Your task to perform on an android device: open a new tab in the chrome app Image 0: 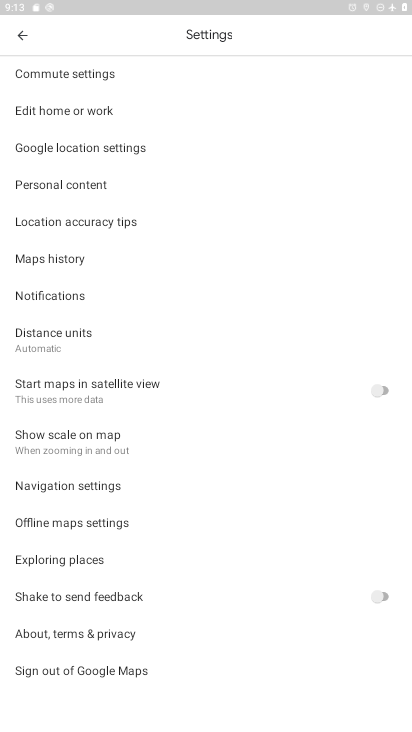
Step 0: press home button
Your task to perform on an android device: open a new tab in the chrome app Image 1: 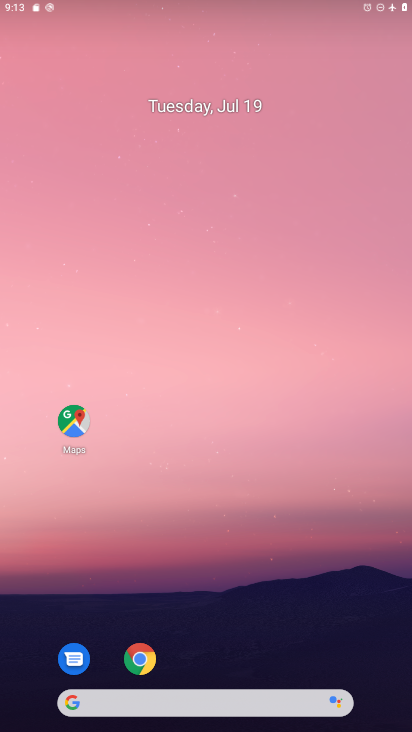
Step 1: drag from (238, 622) to (238, 260)
Your task to perform on an android device: open a new tab in the chrome app Image 2: 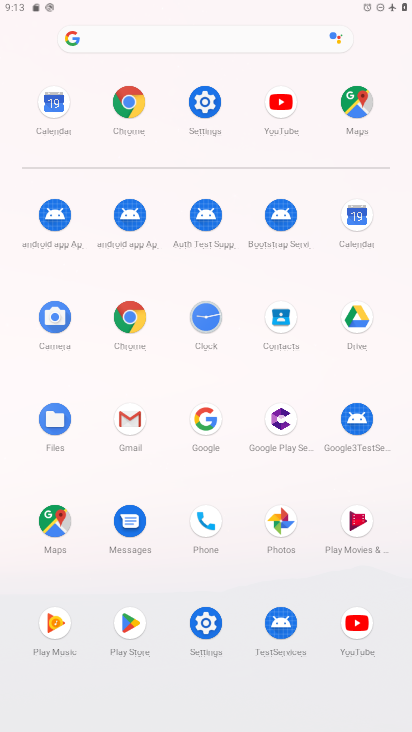
Step 2: click (116, 107)
Your task to perform on an android device: open a new tab in the chrome app Image 3: 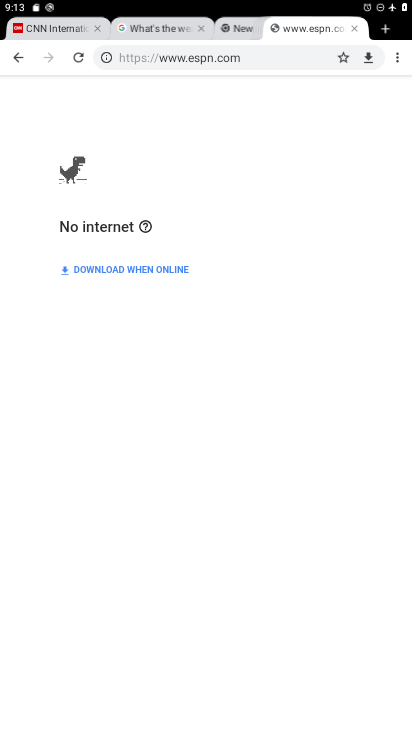
Step 3: click (404, 56)
Your task to perform on an android device: open a new tab in the chrome app Image 4: 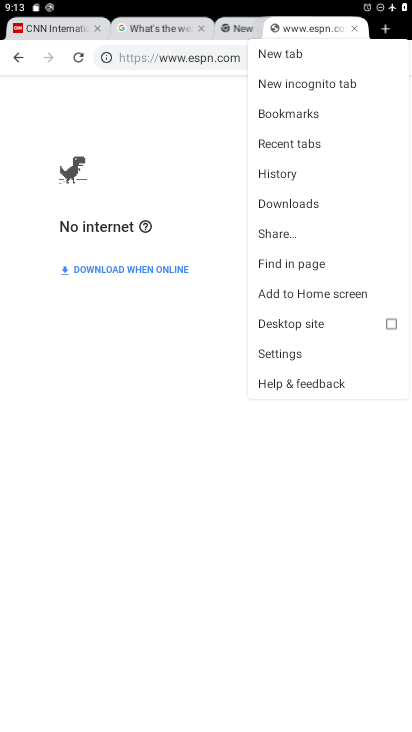
Step 4: click (306, 56)
Your task to perform on an android device: open a new tab in the chrome app Image 5: 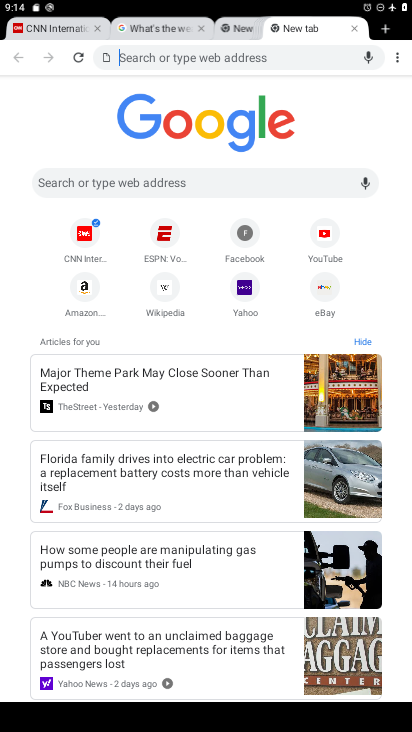
Step 5: task complete